Your task to perform on an android device: How do I get to the nearest Nordstrom? Image 0: 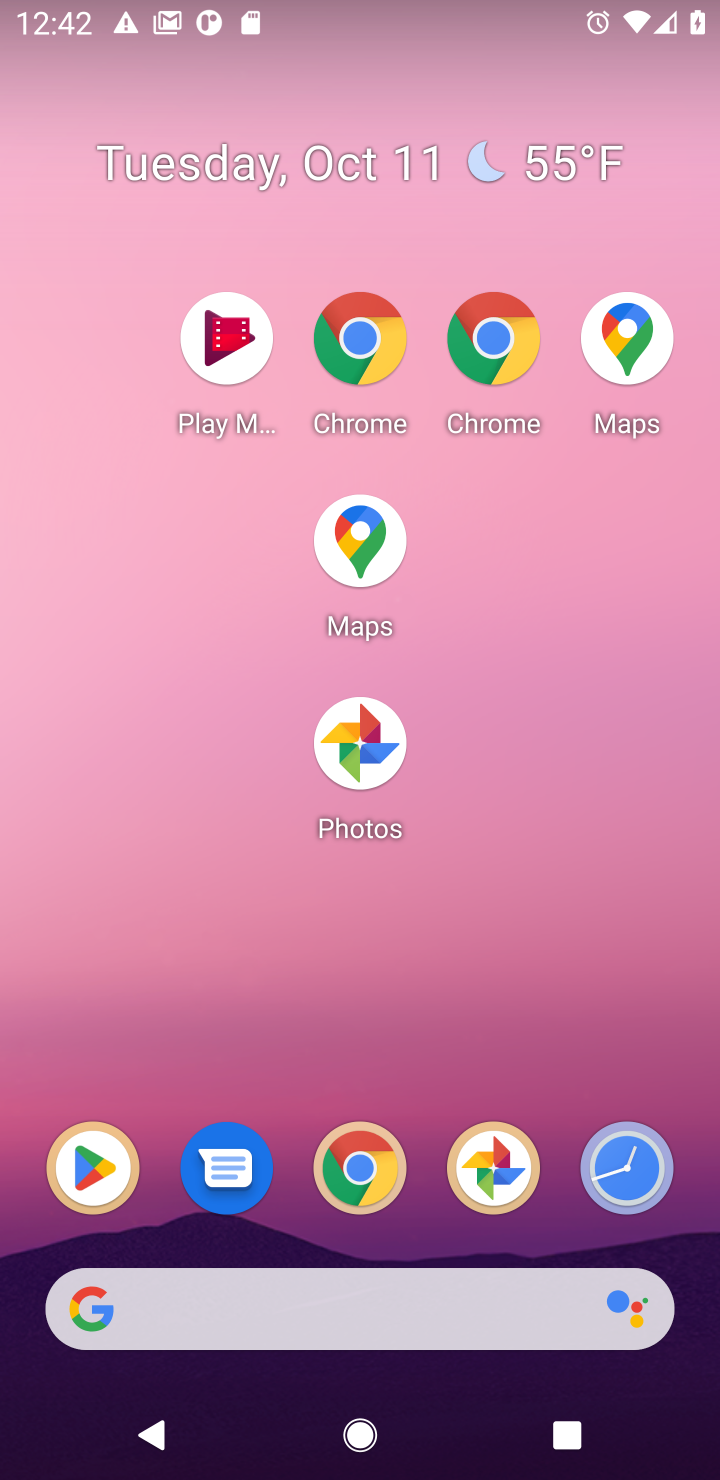
Step 0: drag from (451, 1237) to (430, 694)
Your task to perform on an android device: How do I get to the nearest Nordstrom? Image 1: 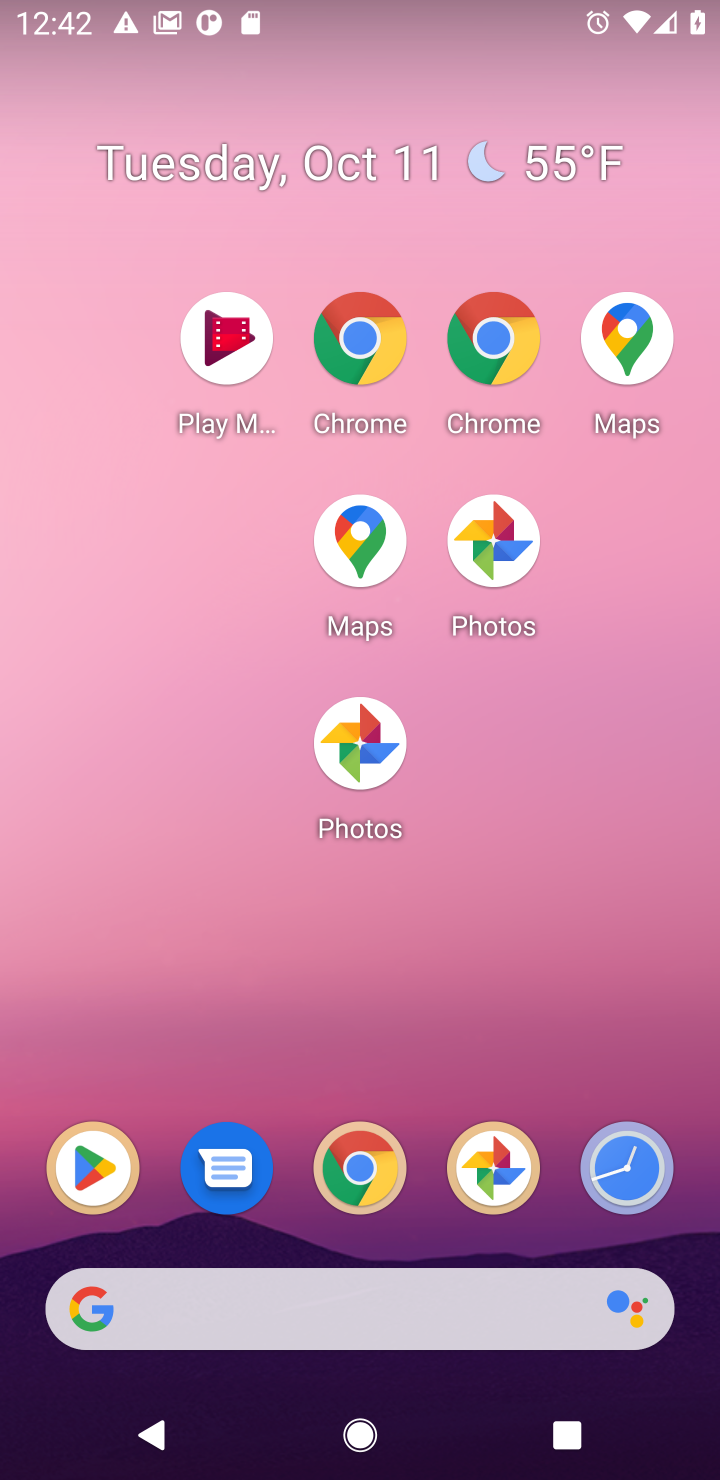
Step 1: drag from (391, 914) to (411, 418)
Your task to perform on an android device: How do I get to the nearest Nordstrom? Image 2: 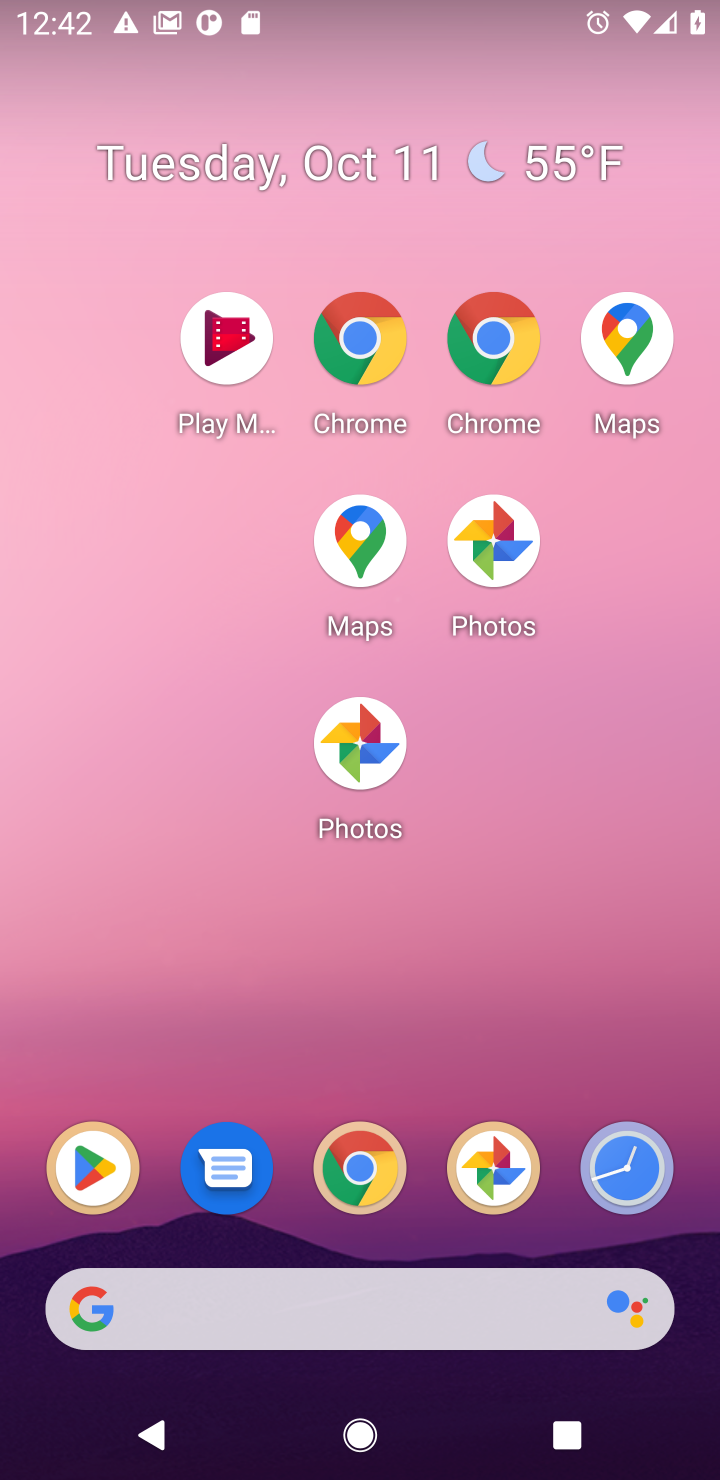
Step 2: drag from (456, 1102) to (438, 655)
Your task to perform on an android device: How do I get to the nearest Nordstrom? Image 3: 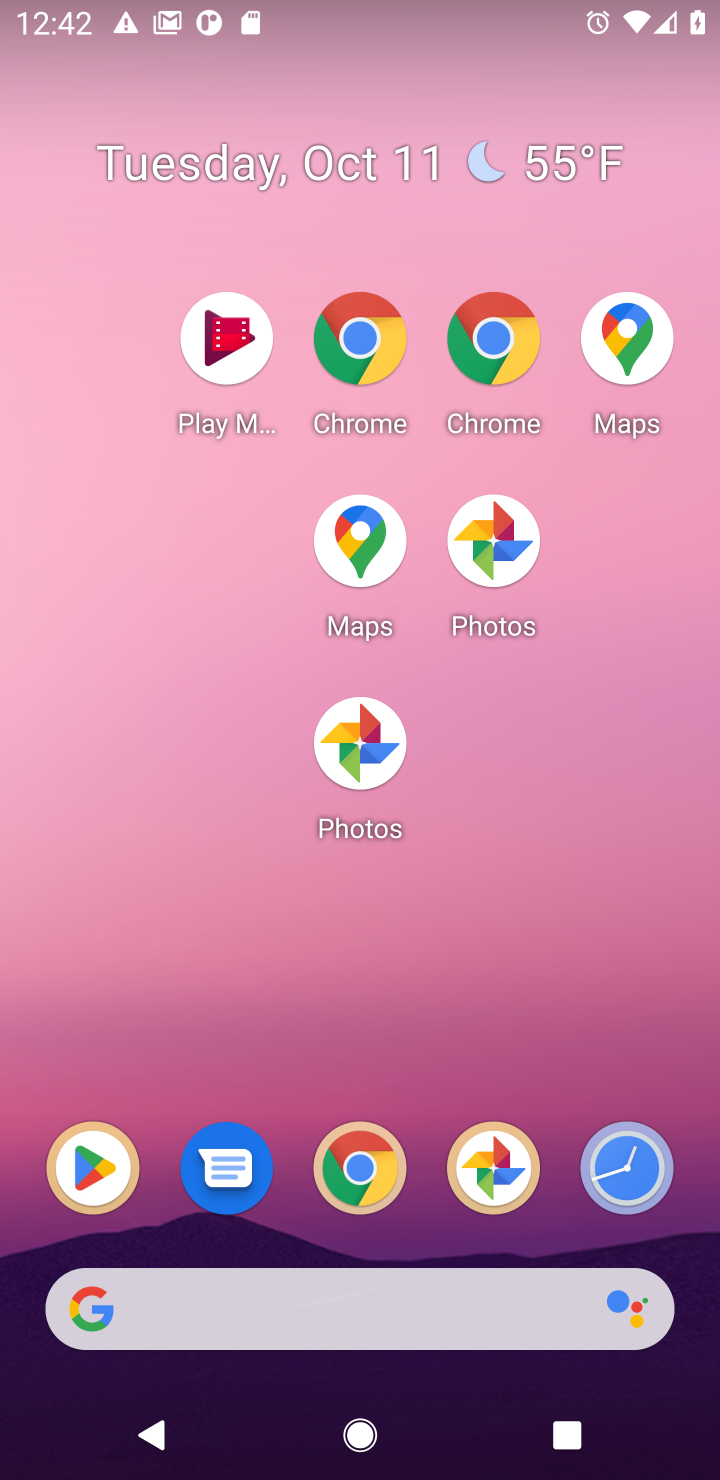
Step 3: drag from (459, 1092) to (477, 249)
Your task to perform on an android device: How do I get to the nearest Nordstrom? Image 4: 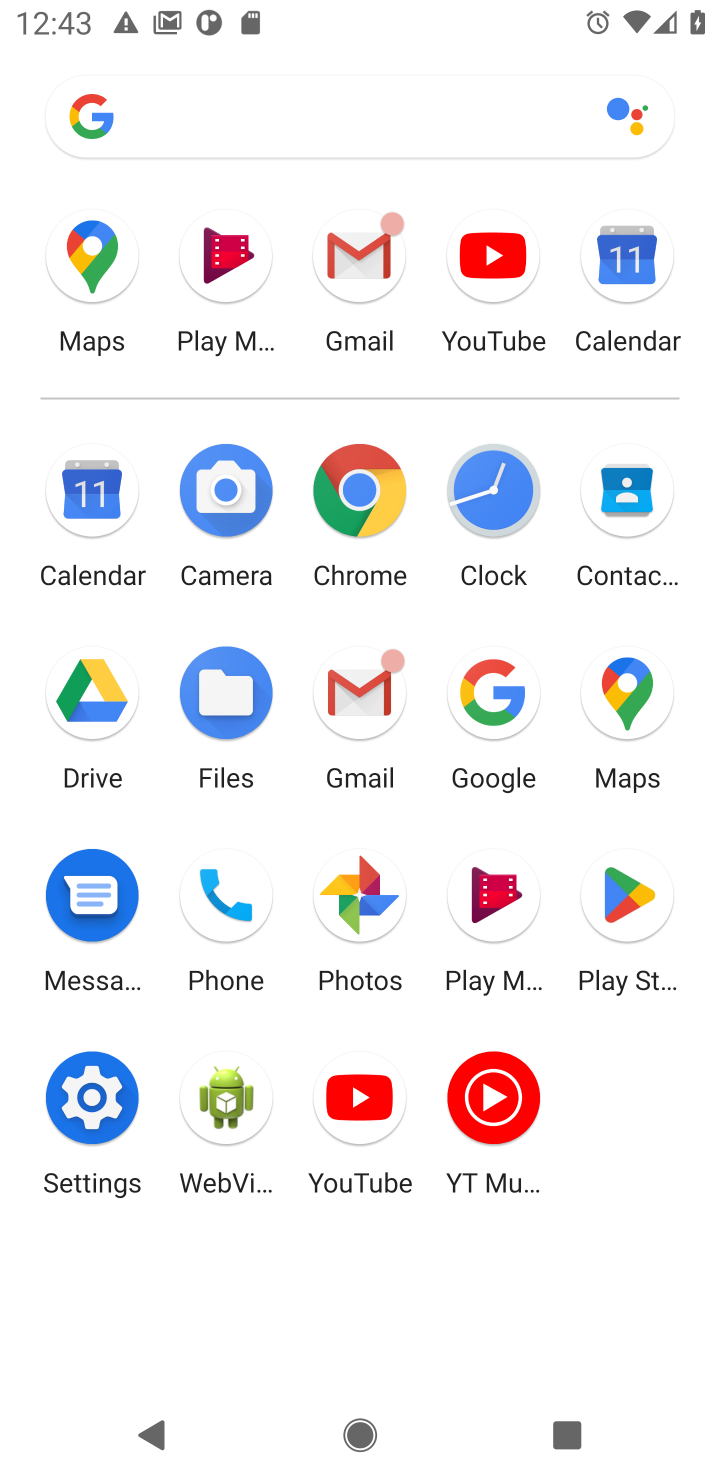
Step 4: click (493, 714)
Your task to perform on an android device: How do I get to the nearest Nordstrom? Image 5: 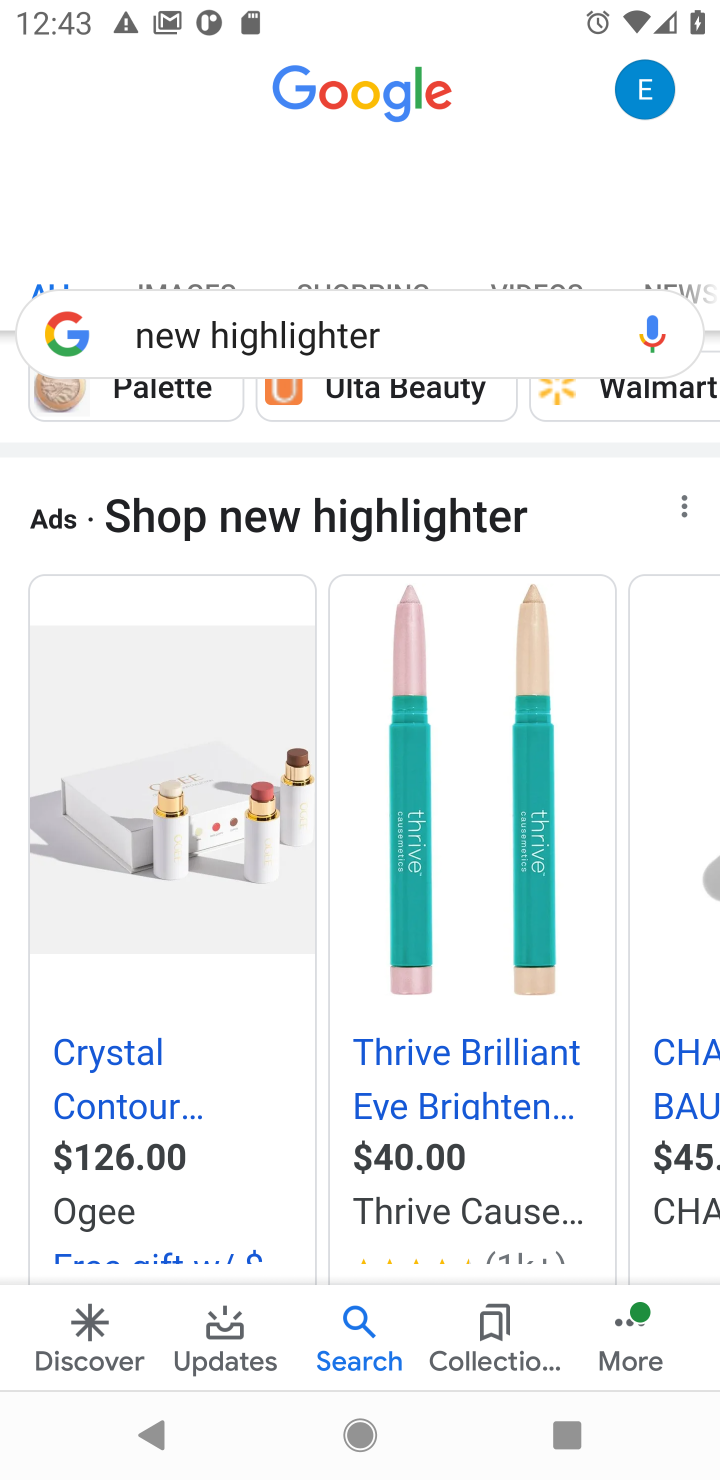
Step 5: click (450, 334)
Your task to perform on an android device: How do I get to the nearest Nordstrom? Image 6: 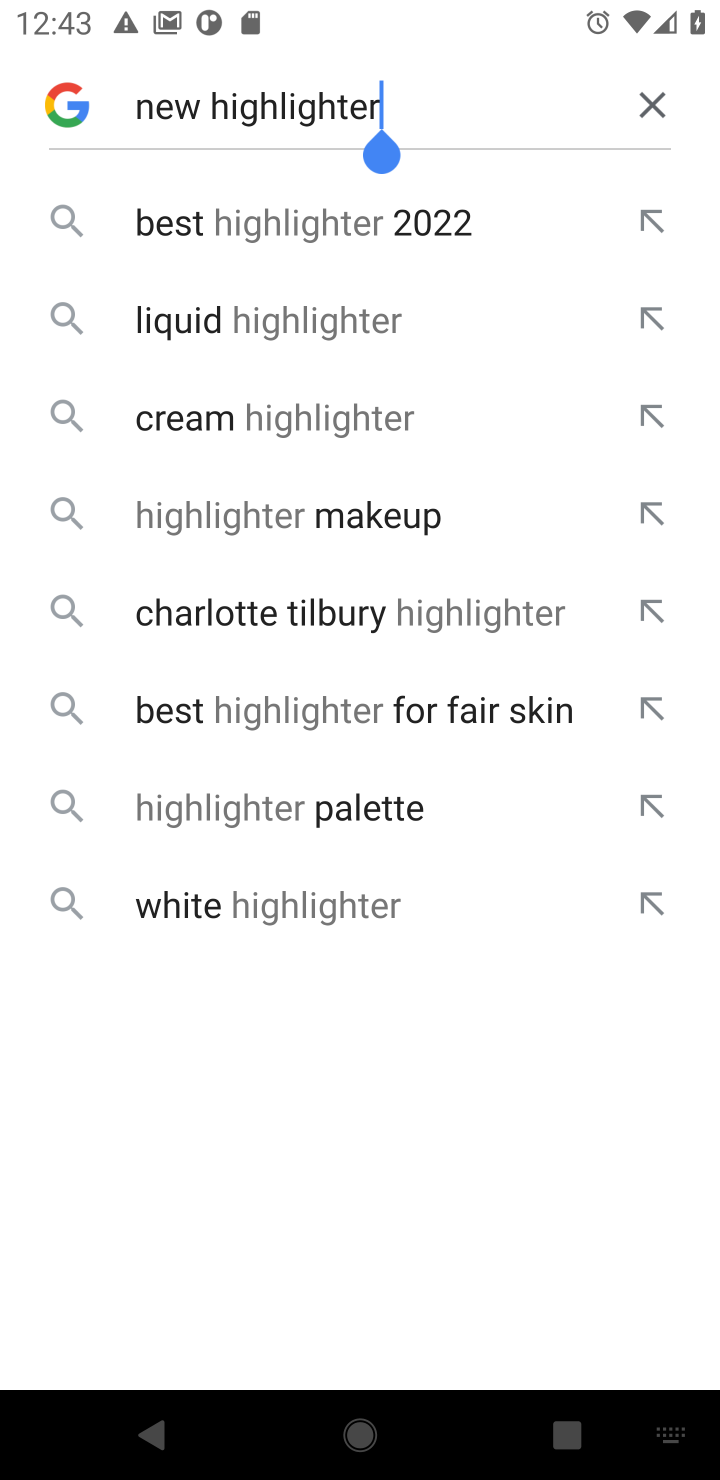
Step 6: click (644, 103)
Your task to perform on an android device: How do I get to the nearest Nordstrom? Image 7: 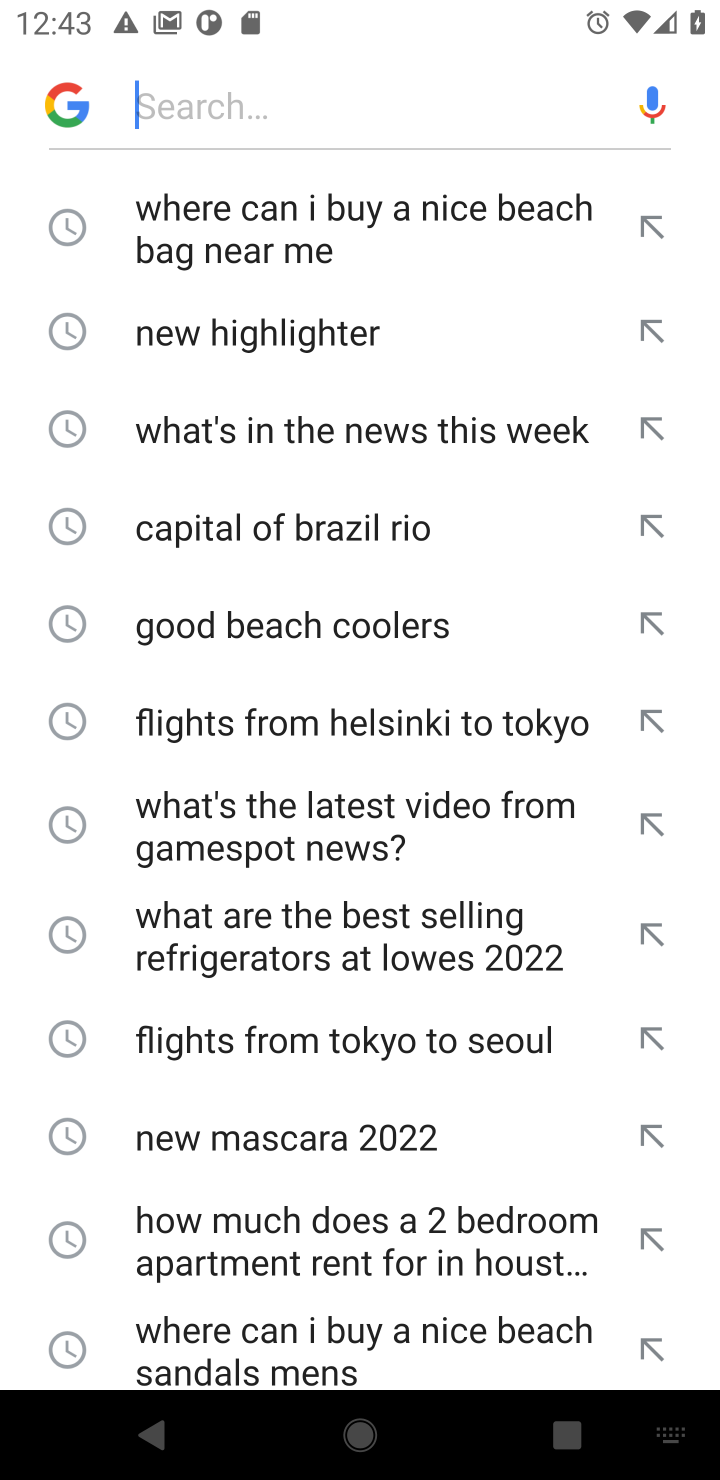
Step 7: type "nearest Nordstrom"
Your task to perform on an android device: How do I get to the nearest Nordstrom? Image 8: 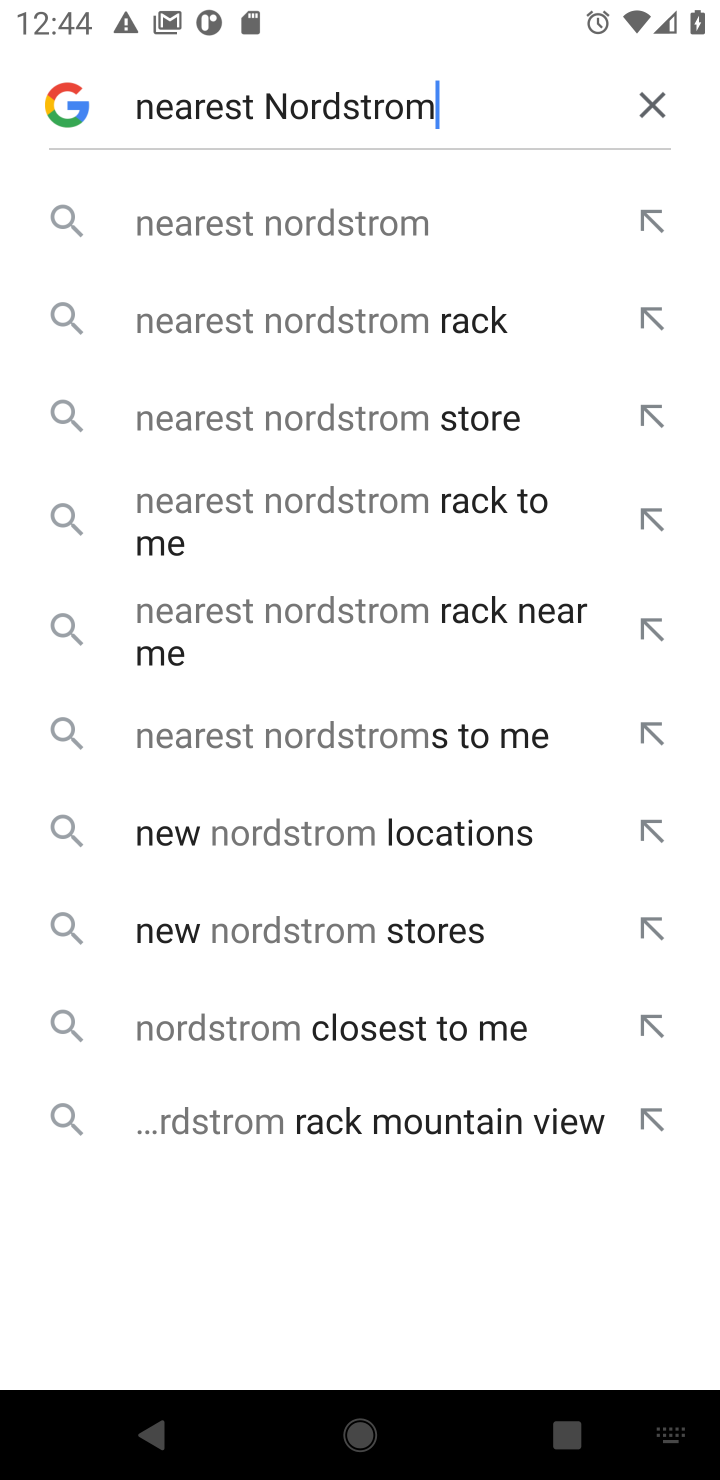
Step 8: click (340, 232)
Your task to perform on an android device: How do I get to the nearest Nordstrom? Image 9: 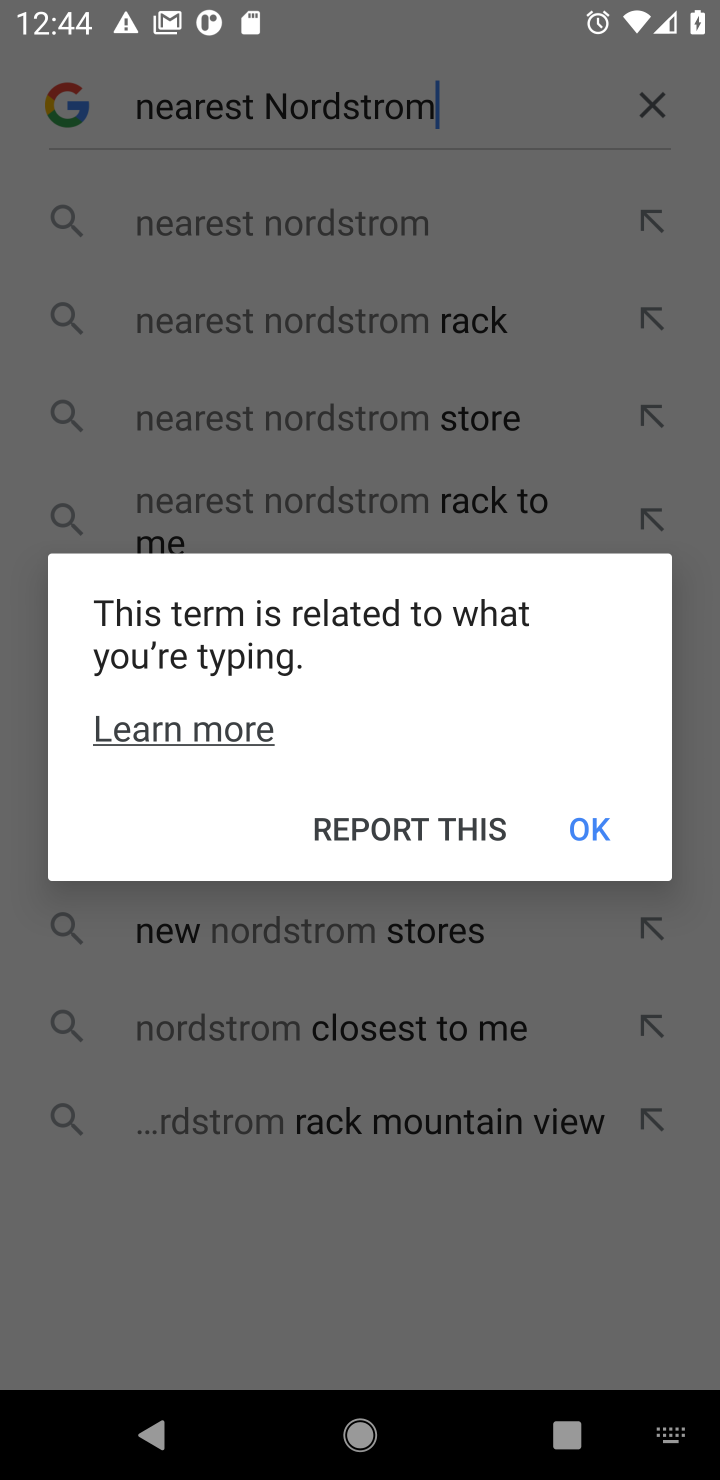
Step 9: click (594, 812)
Your task to perform on an android device: How do I get to the nearest Nordstrom? Image 10: 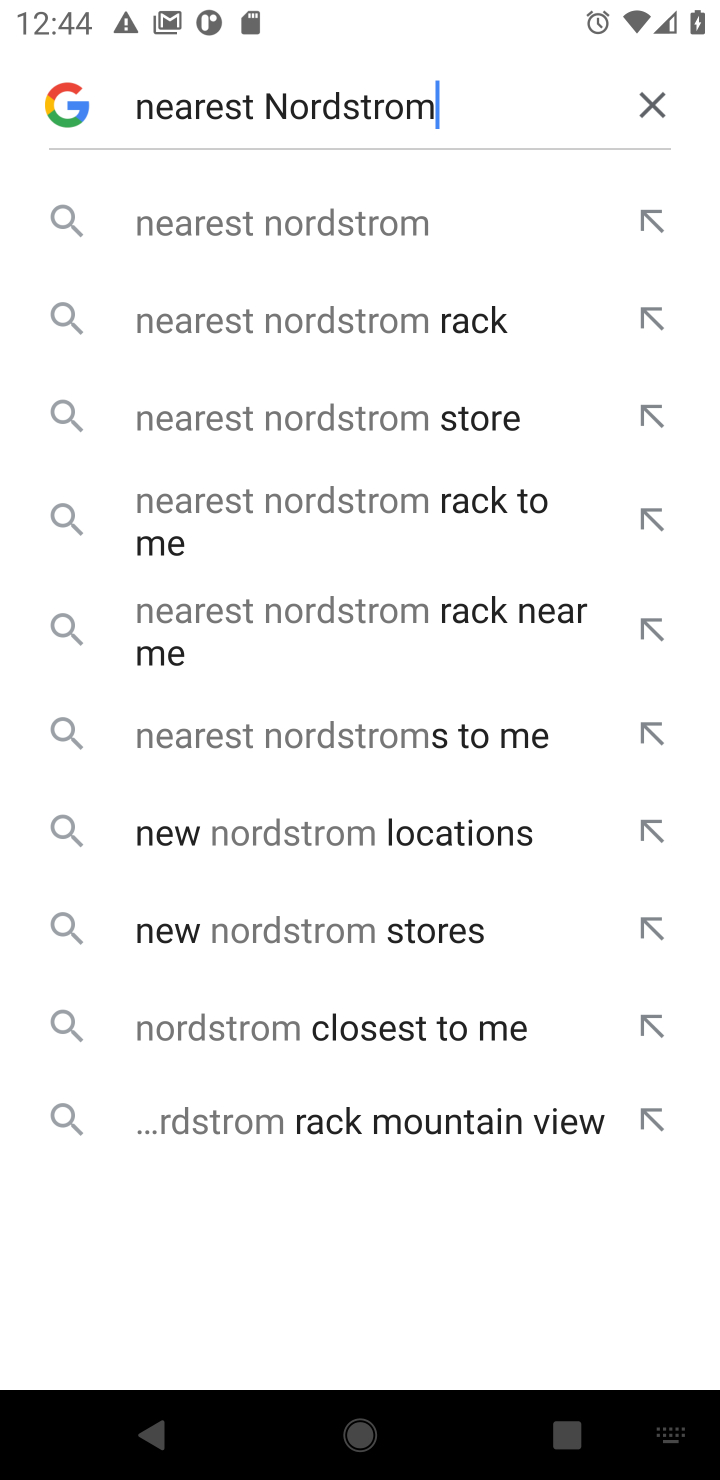
Step 10: click (419, 211)
Your task to perform on an android device: How do I get to the nearest Nordstrom? Image 11: 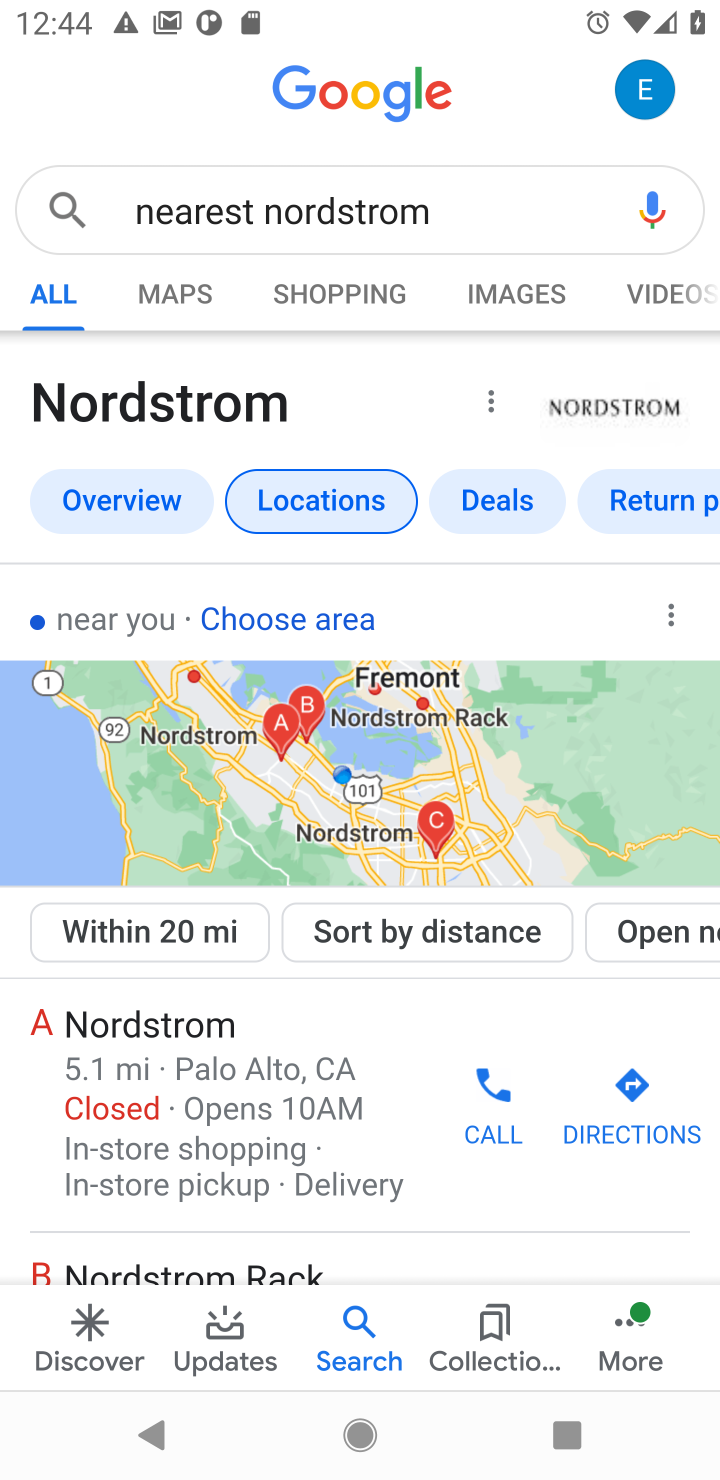
Step 11: click (638, 1111)
Your task to perform on an android device: How do I get to the nearest Nordstrom? Image 12: 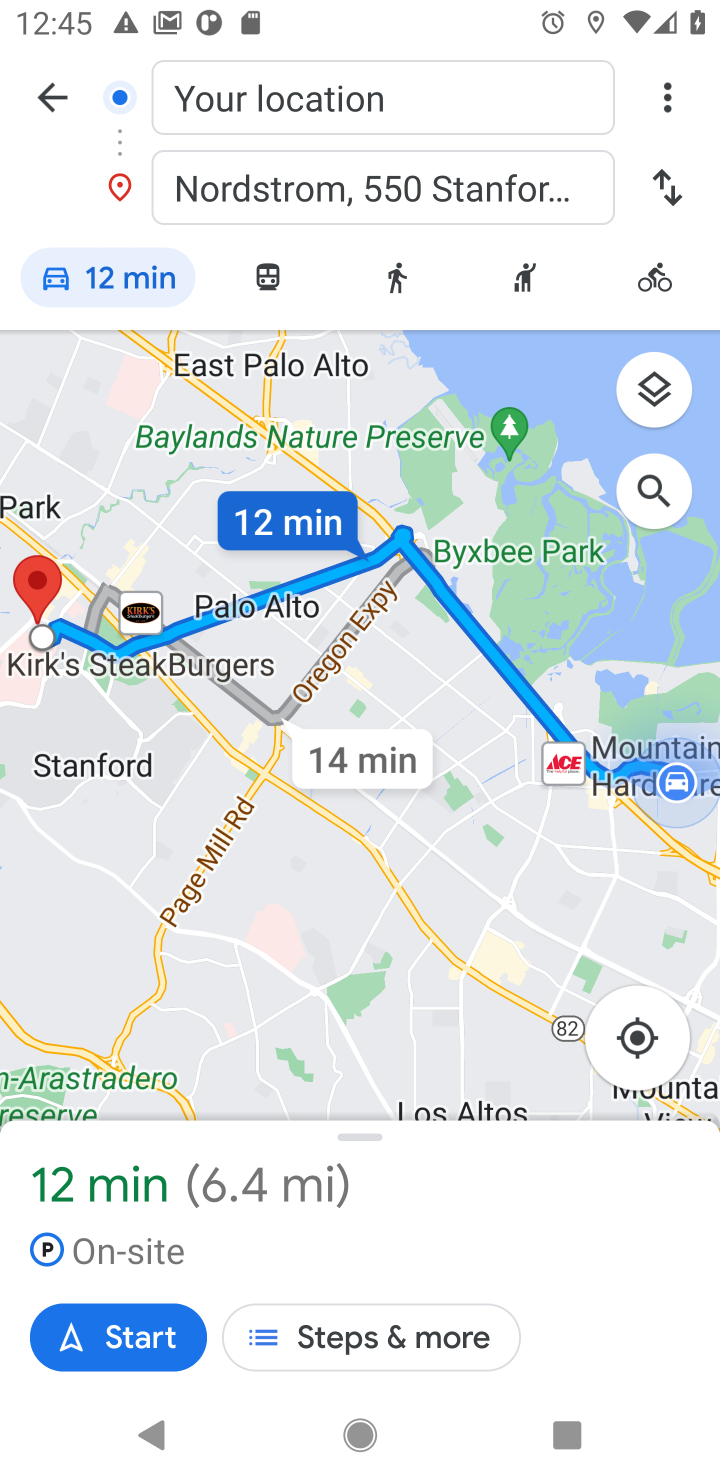
Step 12: task complete